Your task to perform on an android device: create a new album in the google photos Image 0: 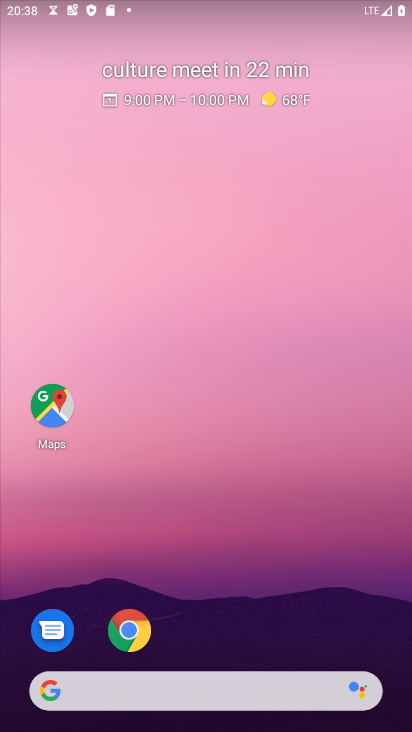
Step 0: drag from (255, 601) to (190, 83)
Your task to perform on an android device: create a new album in the google photos Image 1: 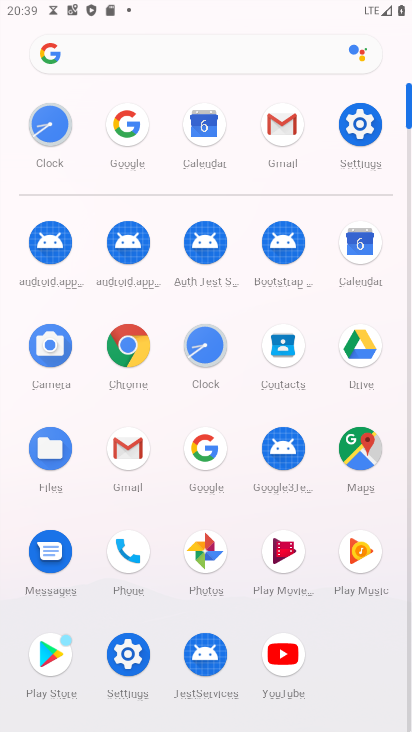
Step 1: click (206, 551)
Your task to perform on an android device: create a new album in the google photos Image 2: 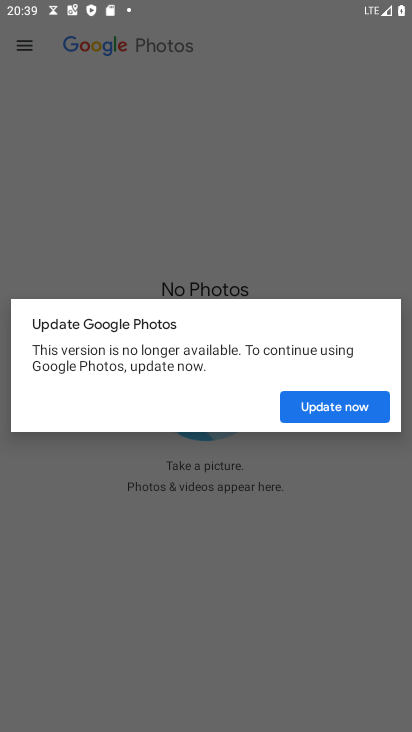
Step 2: click (322, 412)
Your task to perform on an android device: create a new album in the google photos Image 3: 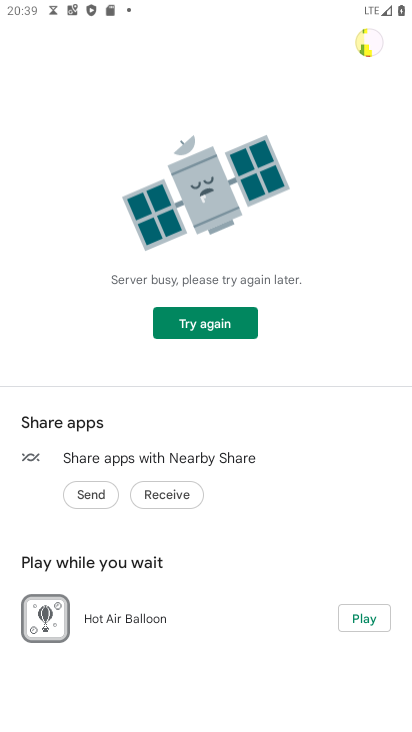
Step 3: click (240, 324)
Your task to perform on an android device: create a new album in the google photos Image 4: 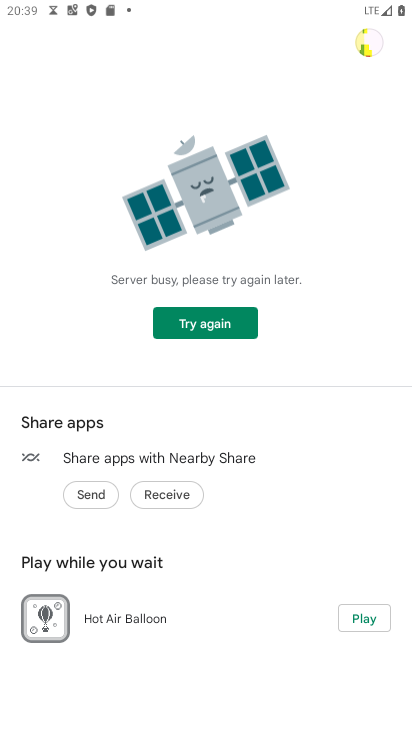
Step 4: click (240, 324)
Your task to perform on an android device: create a new album in the google photos Image 5: 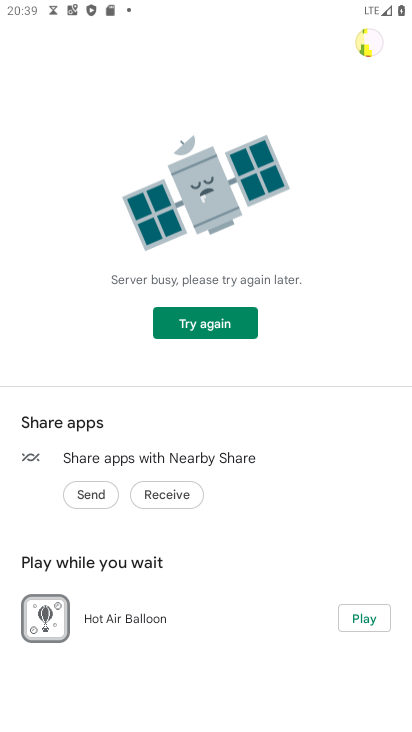
Step 5: task complete